Your task to perform on an android device: turn on showing notifications on the lock screen Image 0: 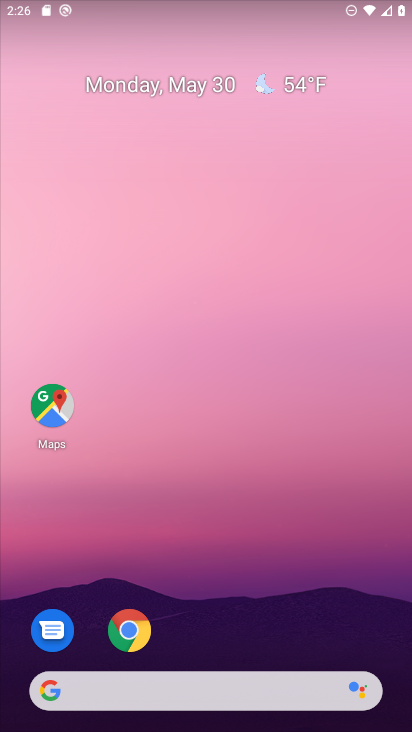
Step 0: press home button
Your task to perform on an android device: turn on showing notifications on the lock screen Image 1: 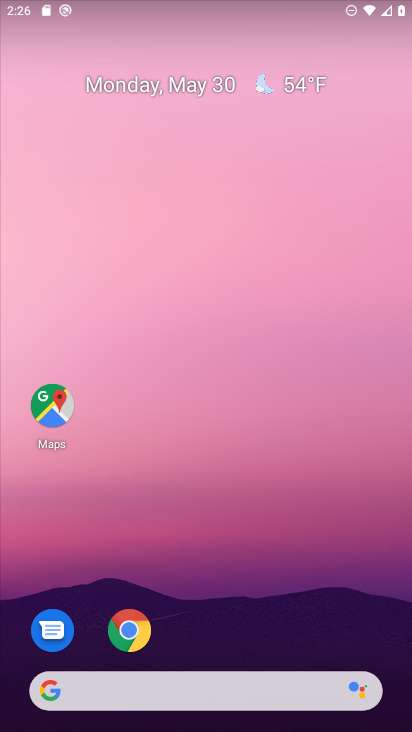
Step 1: drag from (159, 644) to (252, 130)
Your task to perform on an android device: turn on showing notifications on the lock screen Image 2: 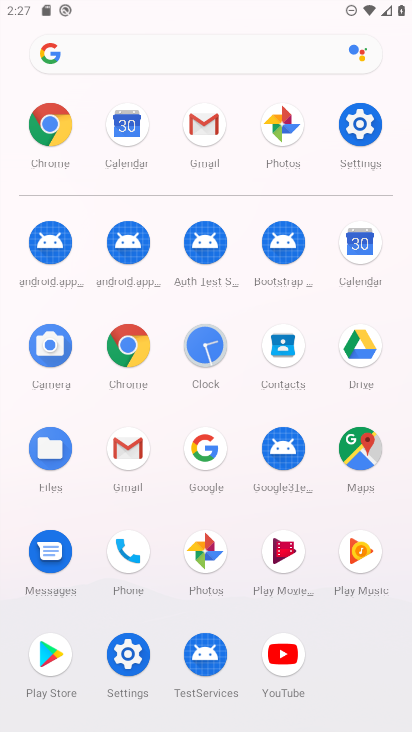
Step 2: click (367, 125)
Your task to perform on an android device: turn on showing notifications on the lock screen Image 3: 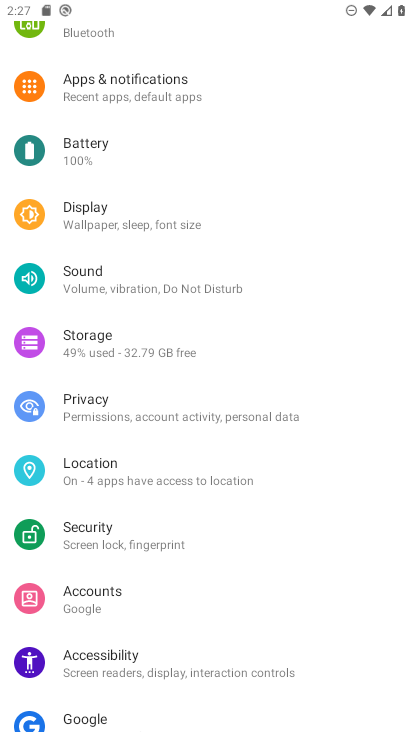
Step 3: click (148, 83)
Your task to perform on an android device: turn on showing notifications on the lock screen Image 4: 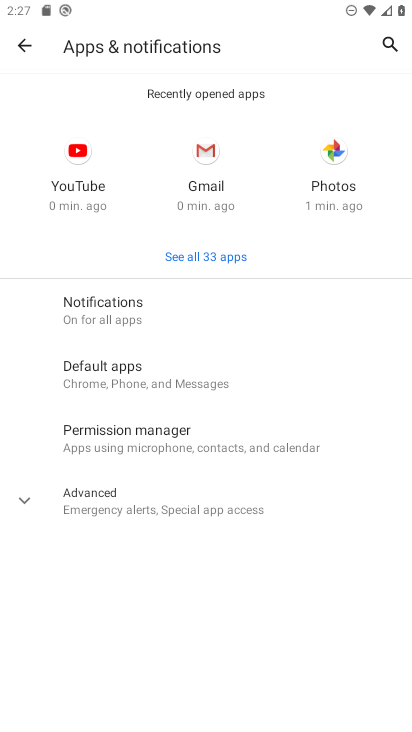
Step 4: click (125, 316)
Your task to perform on an android device: turn on showing notifications on the lock screen Image 5: 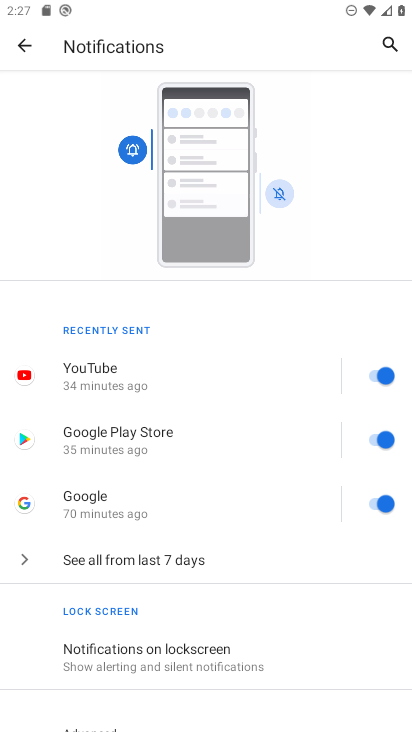
Step 5: click (172, 656)
Your task to perform on an android device: turn on showing notifications on the lock screen Image 6: 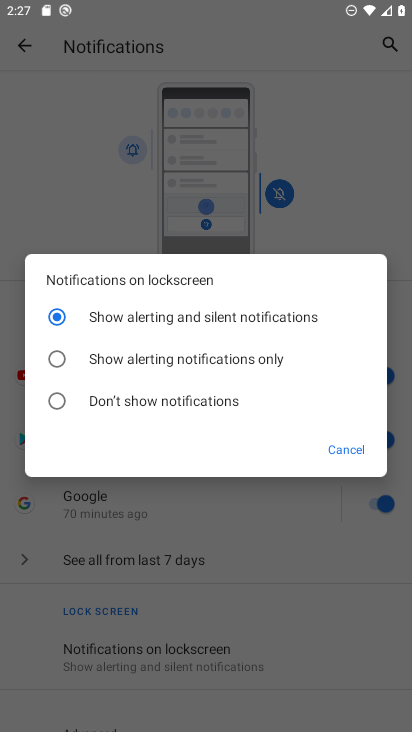
Step 6: task complete